Your task to perform on an android device: Open Reddit.com Image 0: 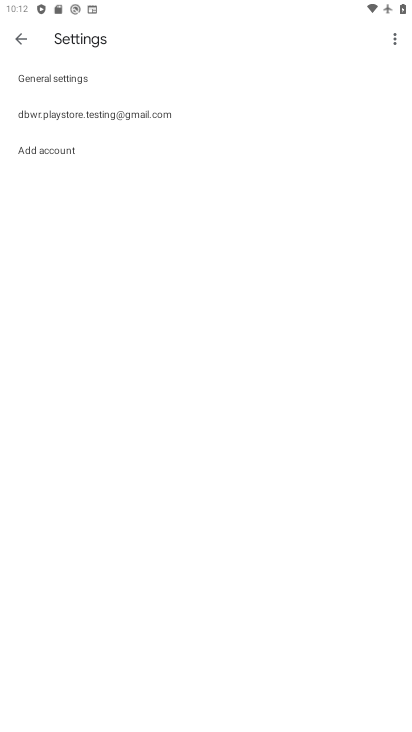
Step 0: press home button
Your task to perform on an android device: Open Reddit.com Image 1: 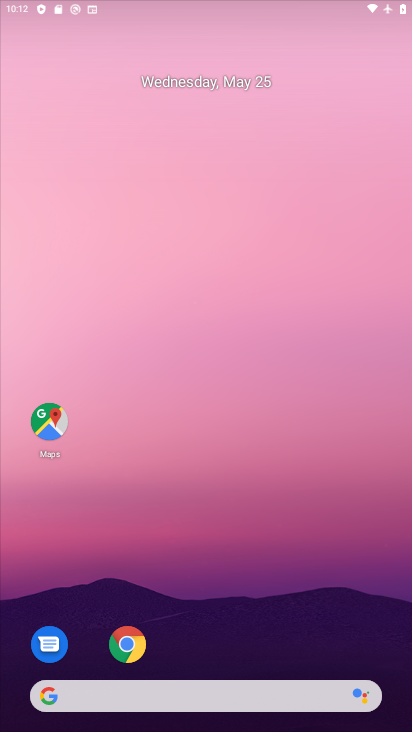
Step 1: drag from (220, 623) to (234, 61)
Your task to perform on an android device: Open Reddit.com Image 2: 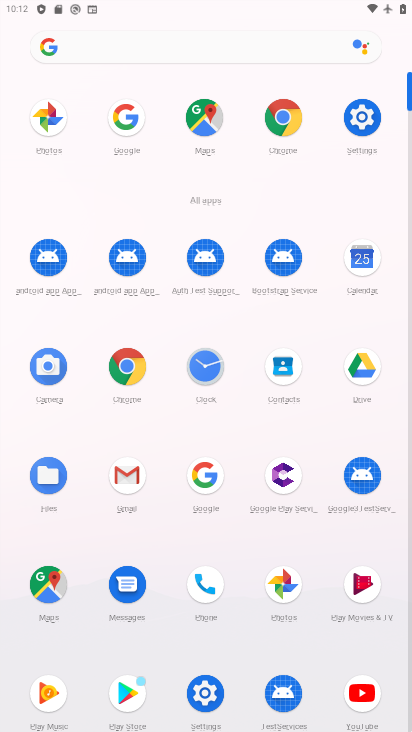
Step 2: click (124, 114)
Your task to perform on an android device: Open Reddit.com Image 3: 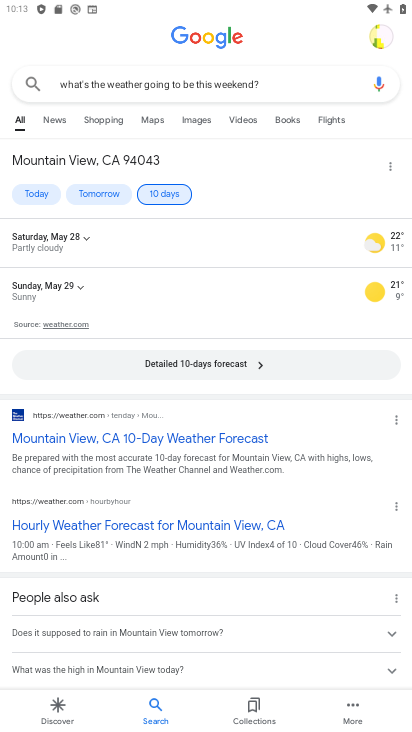
Step 3: click (279, 80)
Your task to perform on an android device: Open Reddit.com Image 4: 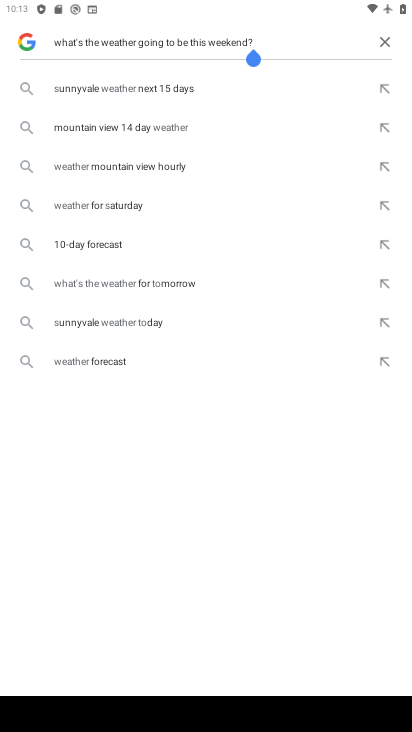
Step 4: click (384, 41)
Your task to perform on an android device: Open Reddit.com Image 5: 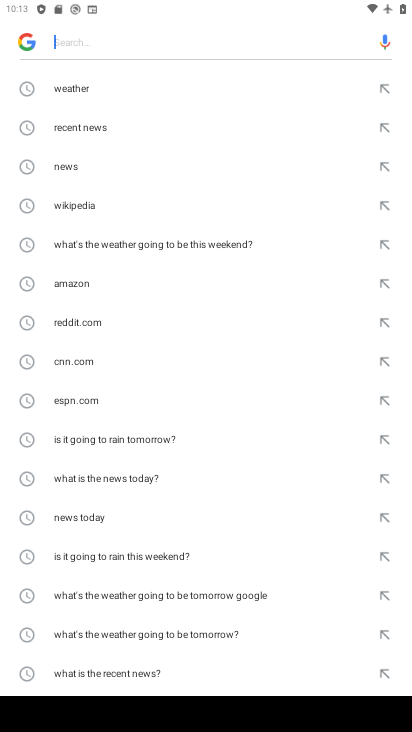
Step 5: click (105, 327)
Your task to perform on an android device: Open Reddit.com Image 6: 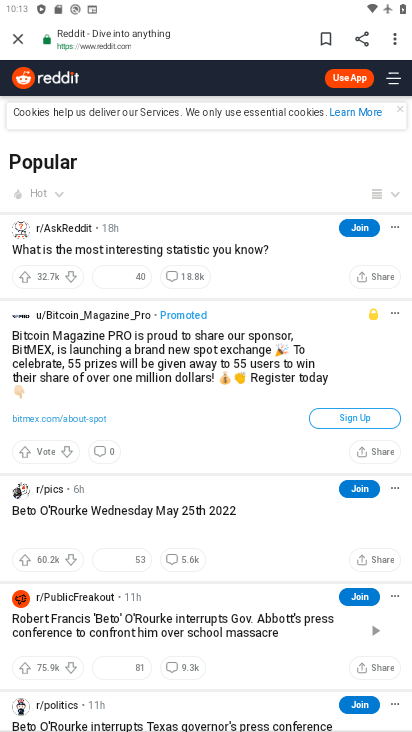
Step 6: task complete